Your task to perform on an android device: turn on javascript in the chrome app Image 0: 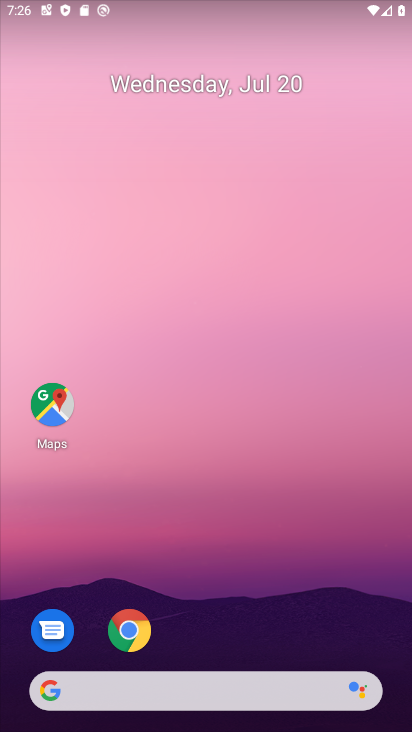
Step 0: click (127, 631)
Your task to perform on an android device: turn on javascript in the chrome app Image 1: 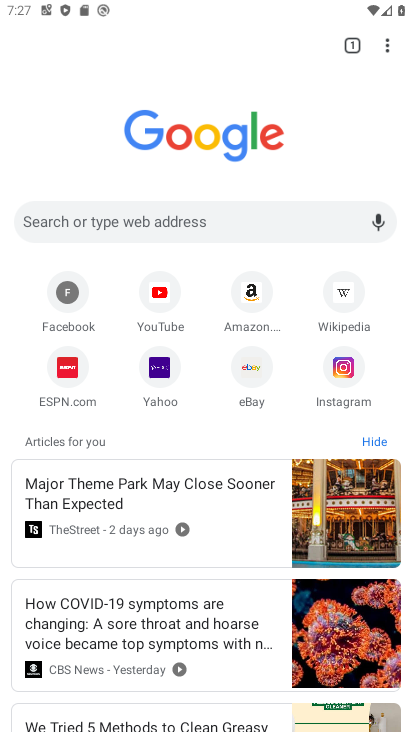
Step 1: click (389, 45)
Your task to perform on an android device: turn on javascript in the chrome app Image 2: 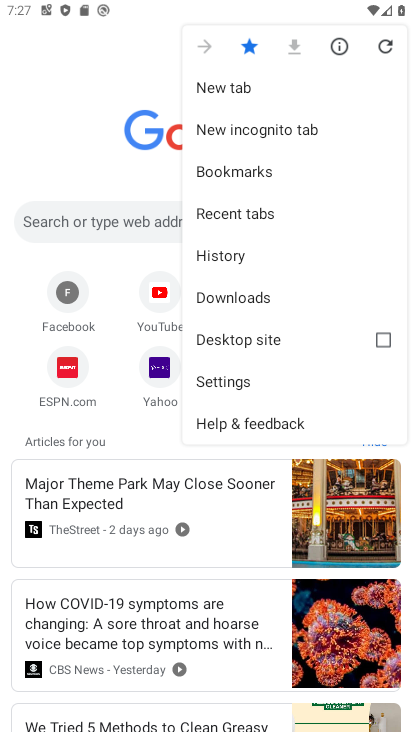
Step 2: click (230, 382)
Your task to perform on an android device: turn on javascript in the chrome app Image 3: 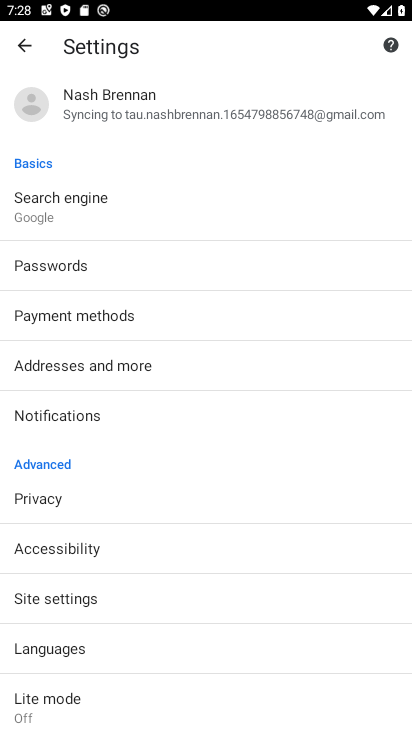
Step 3: click (68, 601)
Your task to perform on an android device: turn on javascript in the chrome app Image 4: 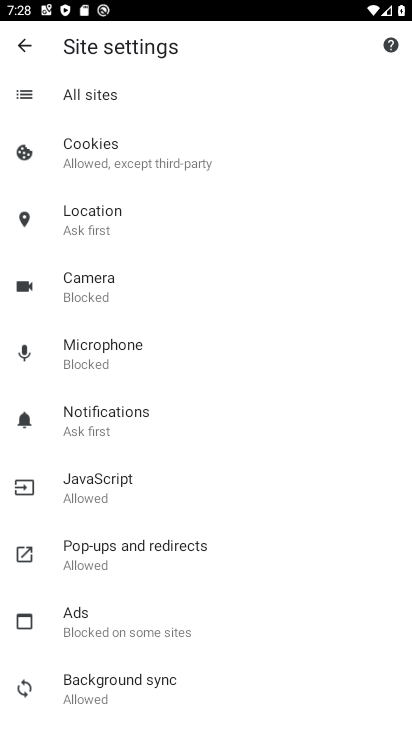
Step 4: click (105, 472)
Your task to perform on an android device: turn on javascript in the chrome app Image 5: 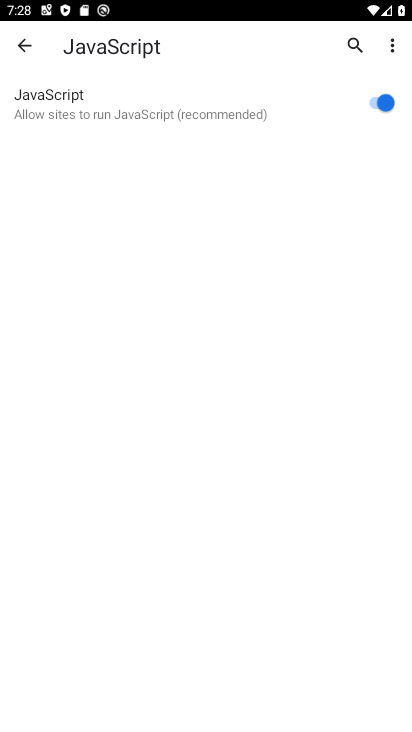
Step 5: task complete